Your task to perform on an android device: What's on my calendar tomorrow? Image 0: 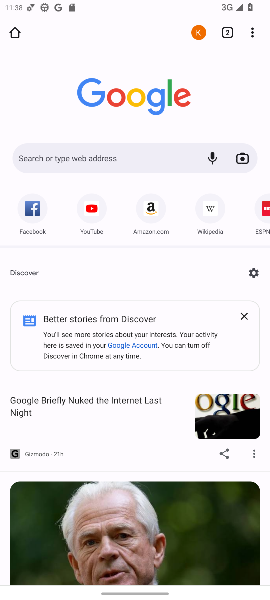
Step 0: click (196, 592)
Your task to perform on an android device: What's on my calendar tomorrow? Image 1: 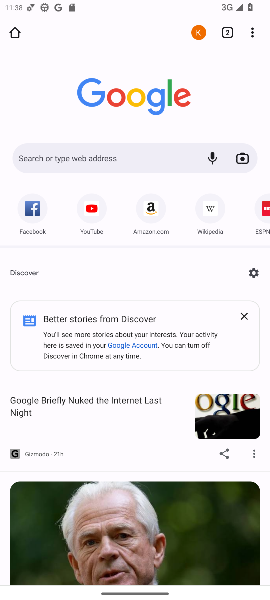
Step 1: press home button
Your task to perform on an android device: What's on my calendar tomorrow? Image 2: 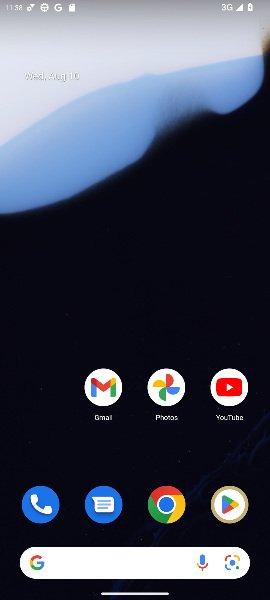
Step 2: drag from (45, 431) to (56, 31)
Your task to perform on an android device: What's on my calendar tomorrow? Image 3: 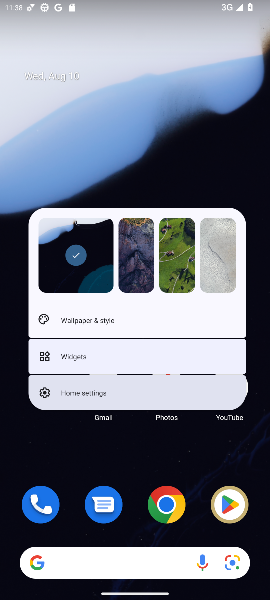
Step 3: press home button
Your task to perform on an android device: What's on my calendar tomorrow? Image 4: 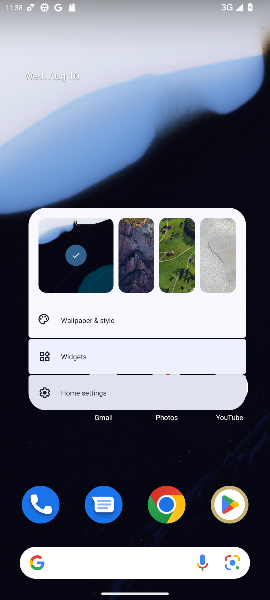
Step 4: drag from (56, 31) to (246, 564)
Your task to perform on an android device: What's on my calendar tomorrow? Image 5: 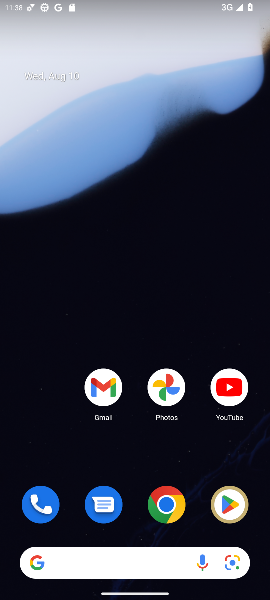
Step 5: drag from (50, 434) to (134, 0)
Your task to perform on an android device: What's on my calendar tomorrow? Image 6: 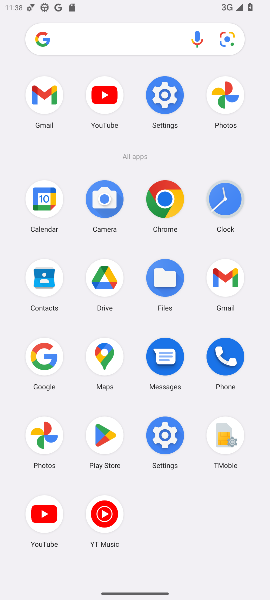
Step 6: click (48, 207)
Your task to perform on an android device: What's on my calendar tomorrow? Image 7: 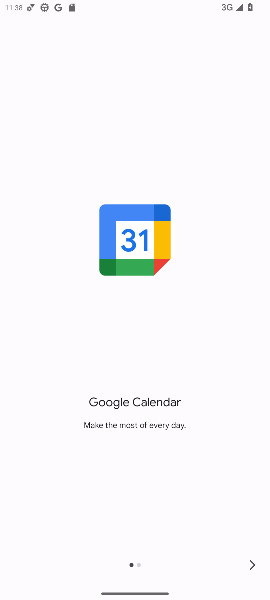
Step 7: click (250, 566)
Your task to perform on an android device: What's on my calendar tomorrow? Image 8: 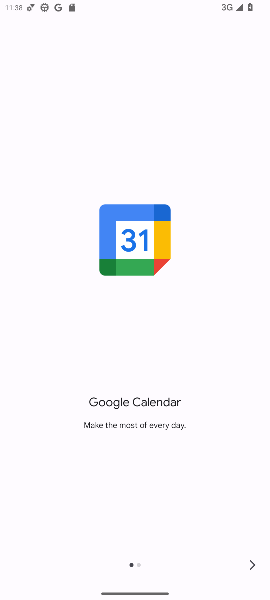
Step 8: click (250, 566)
Your task to perform on an android device: What's on my calendar tomorrow? Image 9: 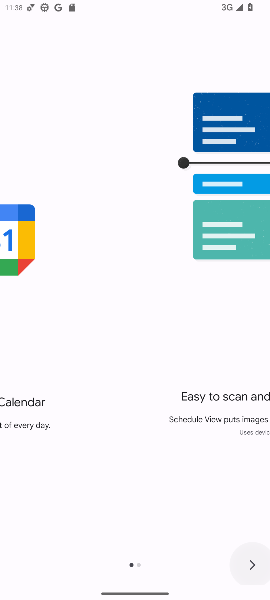
Step 9: click (250, 566)
Your task to perform on an android device: What's on my calendar tomorrow? Image 10: 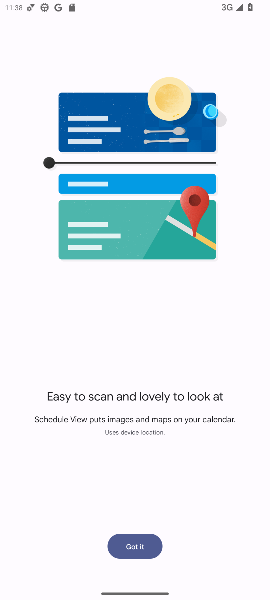
Step 10: click (144, 541)
Your task to perform on an android device: What's on my calendar tomorrow? Image 11: 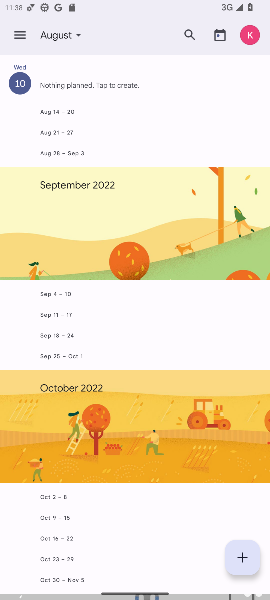
Step 11: drag from (243, 77) to (9, 105)
Your task to perform on an android device: What's on my calendar tomorrow? Image 12: 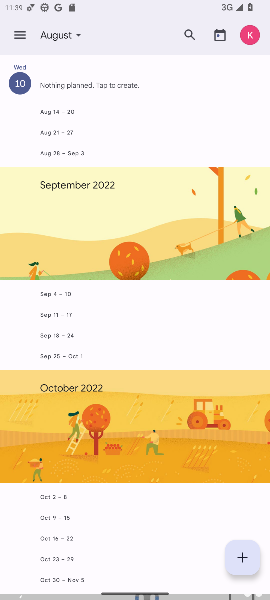
Step 12: drag from (215, 82) to (1, 74)
Your task to perform on an android device: What's on my calendar tomorrow? Image 13: 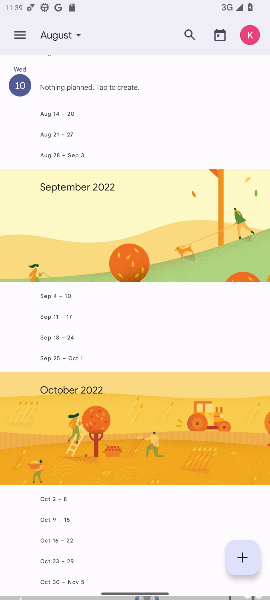
Step 13: drag from (229, 74) to (0, 51)
Your task to perform on an android device: What's on my calendar tomorrow? Image 14: 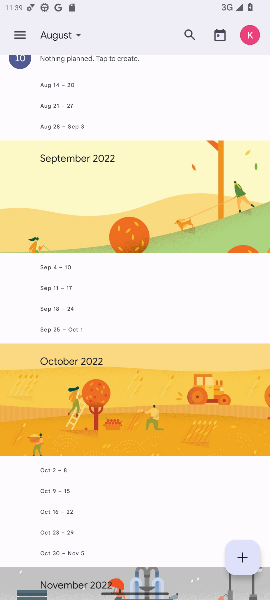
Step 14: click (22, 30)
Your task to perform on an android device: What's on my calendar tomorrow? Image 15: 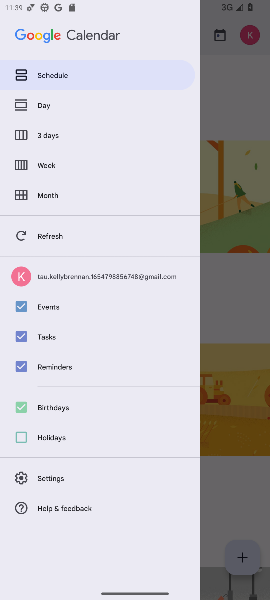
Step 15: click (36, 100)
Your task to perform on an android device: What's on my calendar tomorrow? Image 16: 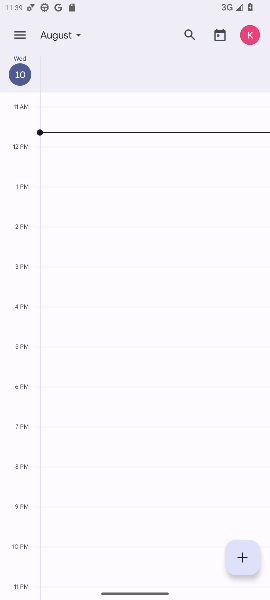
Step 16: task complete